Your task to perform on an android device: Search for flights from NYC to Paris Image 0: 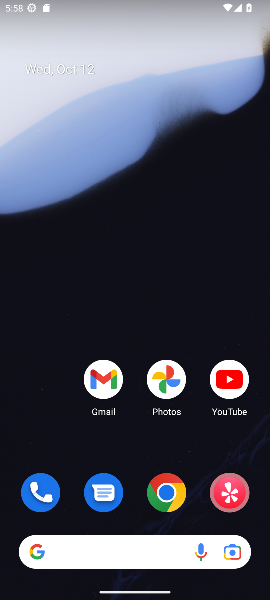
Step 0: click (177, 496)
Your task to perform on an android device: Search for flights from NYC to Paris Image 1: 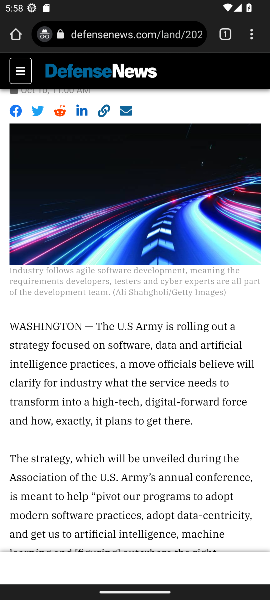
Step 1: click (132, 48)
Your task to perform on an android device: Search for flights from NYC to Paris Image 2: 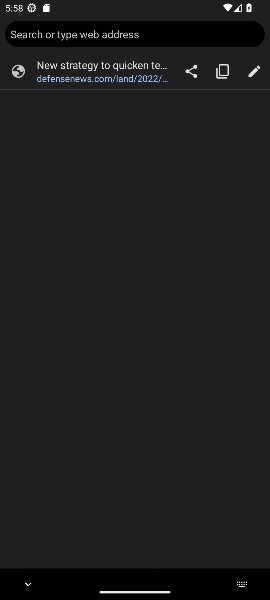
Step 2: type " NYC to Paris flights"
Your task to perform on an android device: Search for flights from NYC to Paris Image 3: 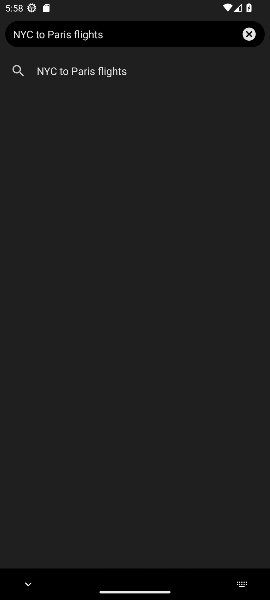
Step 3: click (119, 76)
Your task to perform on an android device: Search for flights from NYC to Paris Image 4: 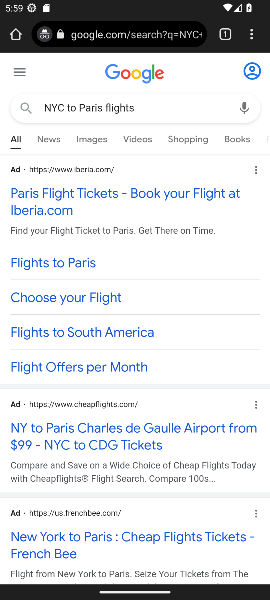
Step 4: click (111, 442)
Your task to perform on an android device: Search for flights from NYC to Paris Image 5: 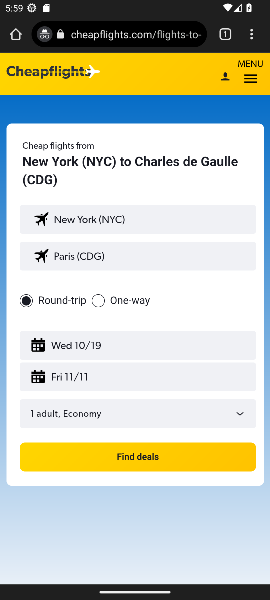
Step 5: task complete